Your task to perform on an android device: Go to Google Image 0: 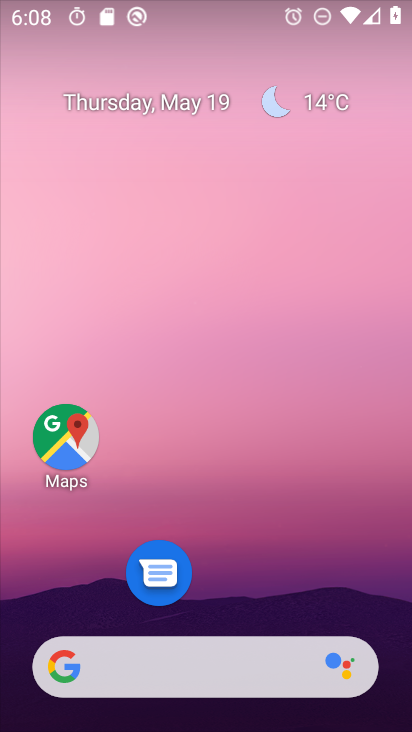
Step 0: click (191, 677)
Your task to perform on an android device: Go to Google Image 1: 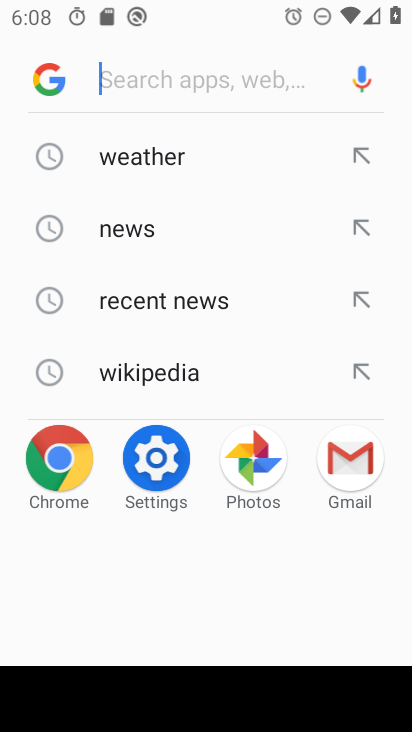
Step 1: task complete